Your task to perform on an android device: make emails show in primary in the gmail app Image 0: 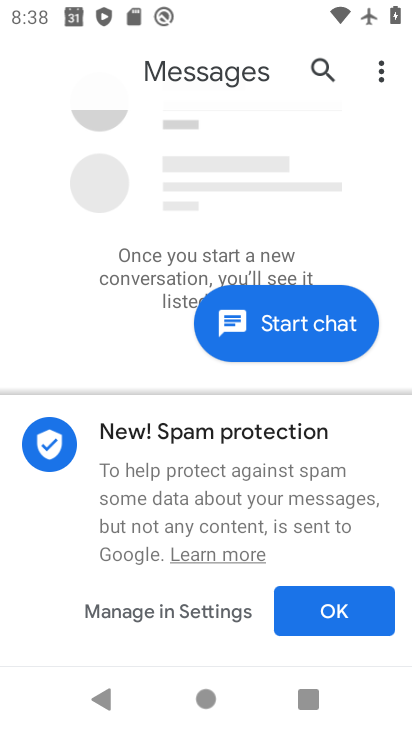
Step 0: press home button
Your task to perform on an android device: make emails show in primary in the gmail app Image 1: 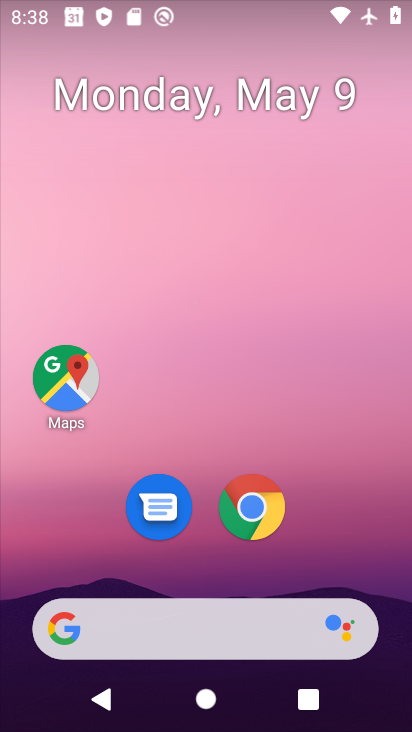
Step 1: drag from (248, 604) to (259, 19)
Your task to perform on an android device: make emails show in primary in the gmail app Image 2: 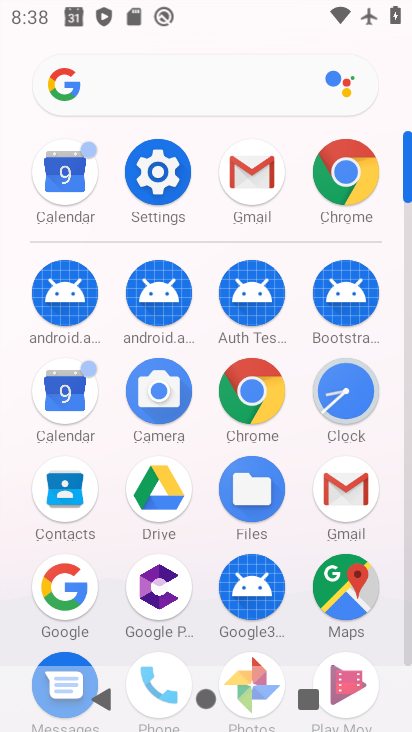
Step 2: click (338, 507)
Your task to perform on an android device: make emails show in primary in the gmail app Image 3: 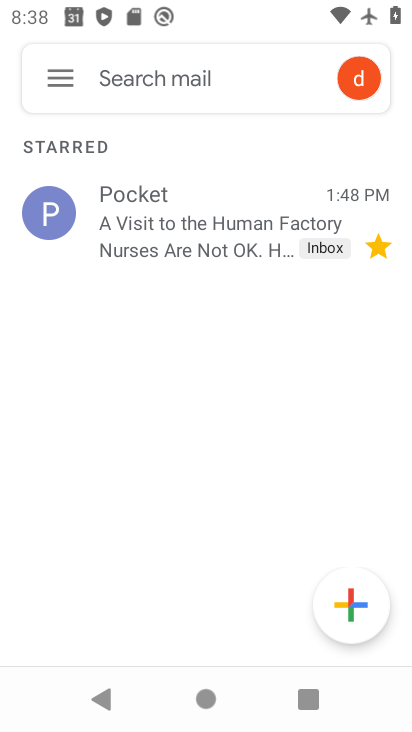
Step 3: click (50, 74)
Your task to perform on an android device: make emails show in primary in the gmail app Image 4: 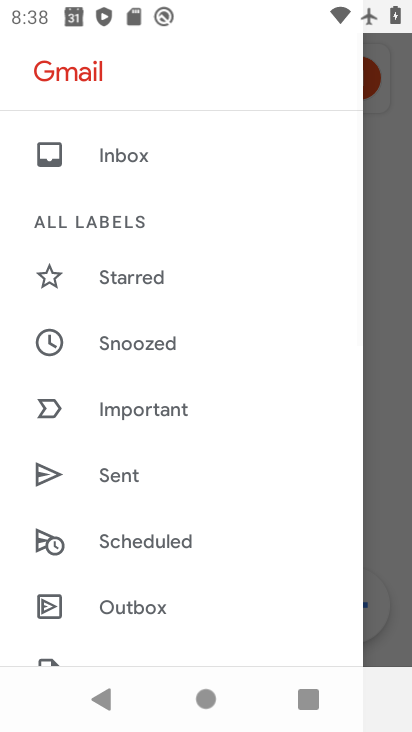
Step 4: drag from (168, 572) to (128, 12)
Your task to perform on an android device: make emails show in primary in the gmail app Image 5: 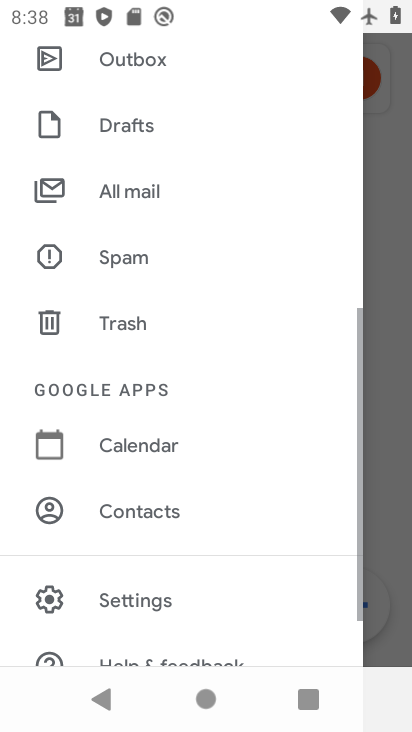
Step 5: click (139, 602)
Your task to perform on an android device: make emails show in primary in the gmail app Image 6: 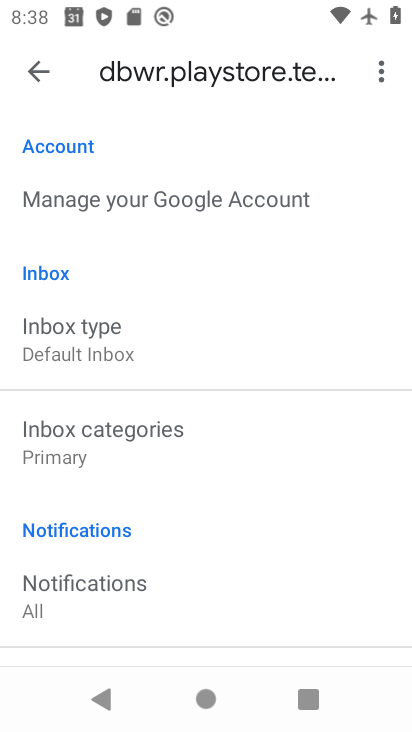
Step 6: click (45, 56)
Your task to perform on an android device: make emails show in primary in the gmail app Image 7: 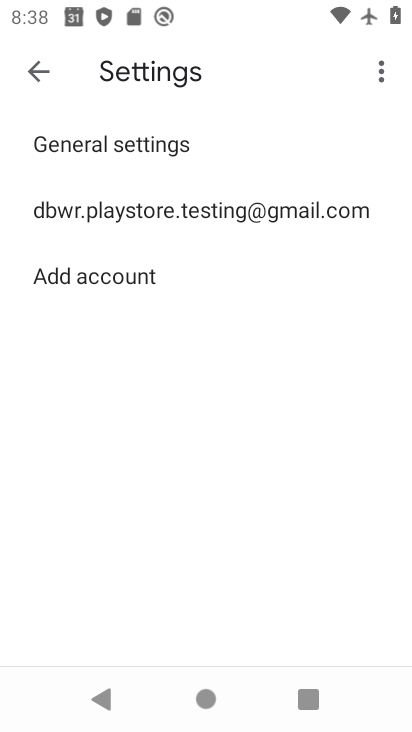
Step 7: click (42, 60)
Your task to perform on an android device: make emails show in primary in the gmail app Image 8: 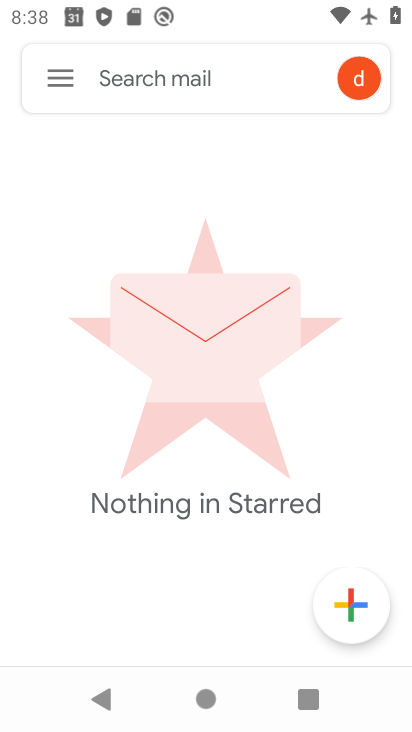
Step 8: click (45, 73)
Your task to perform on an android device: make emails show in primary in the gmail app Image 9: 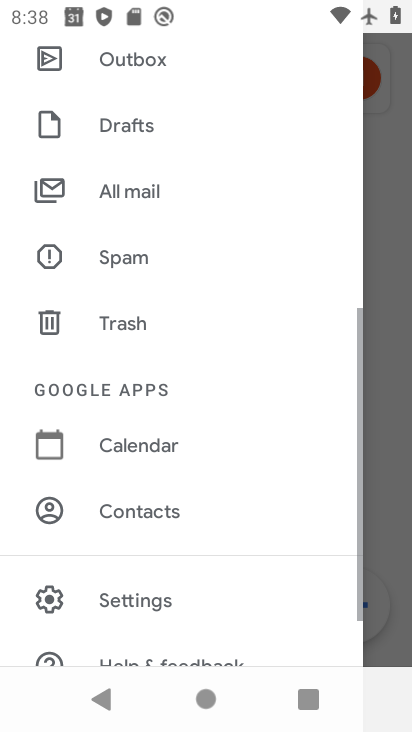
Step 9: drag from (81, 131) to (106, 628)
Your task to perform on an android device: make emails show in primary in the gmail app Image 10: 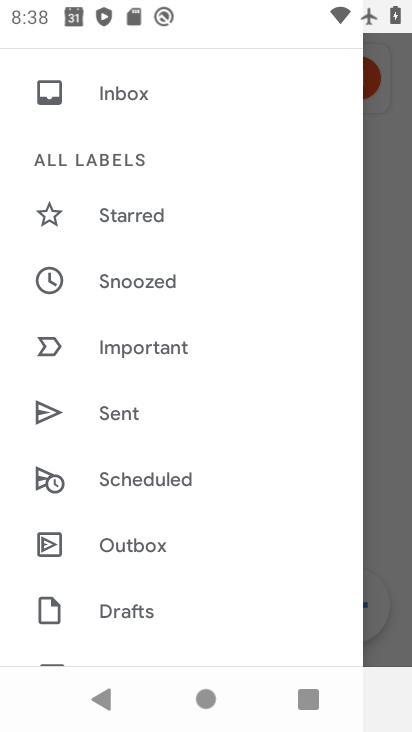
Step 10: drag from (94, 184) to (118, 559)
Your task to perform on an android device: make emails show in primary in the gmail app Image 11: 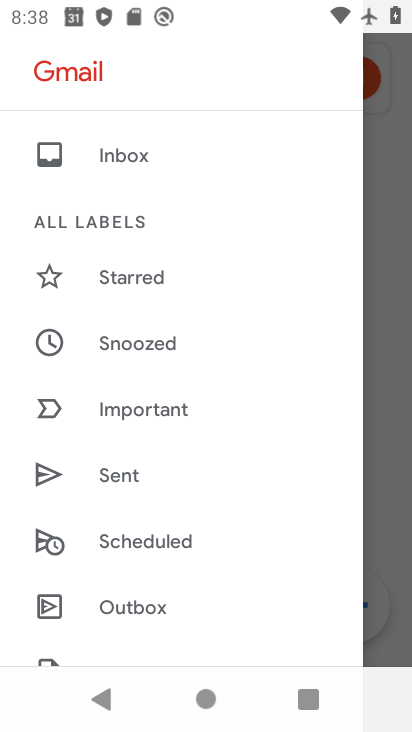
Step 11: drag from (143, 464) to (158, 3)
Your task to perform on an android device: make emails show in primary in the gmail app Image 12: 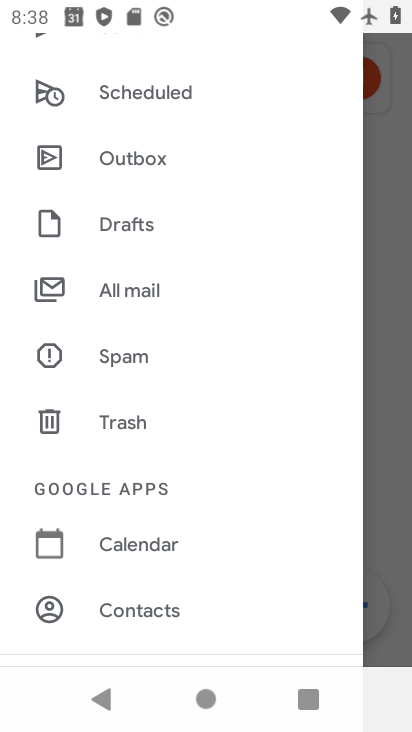
Step 12: drag from (139, 551) to (161, 7)
Your task to perform on an android device: make emails show in primary in the gmail app Image 13: 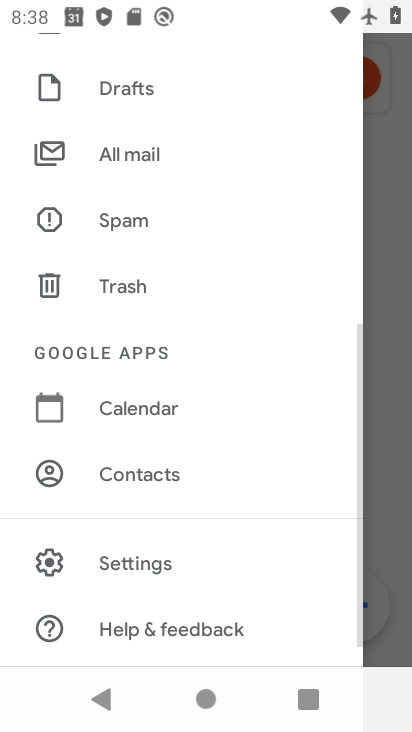
Step 13: click (149, 548)
Your task to perform on an android device: make emails show in primary in the gmail app Image 14: 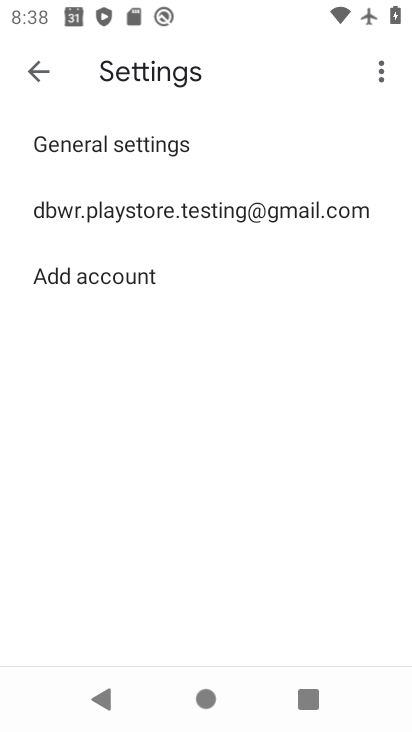
Step 14: click (150, 206)
Your task to perform on an android device: make emails show in primary in the gmail app Image 15: 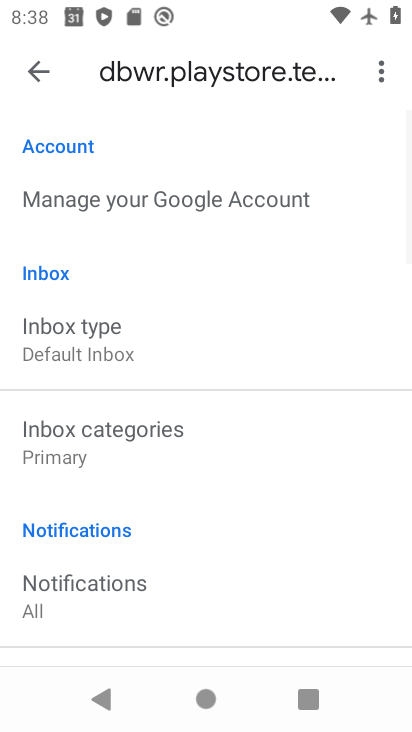
Step 15: click (127, 416)
Your task to perform on an android device: make emails show in primary in the gmail app Image 16: 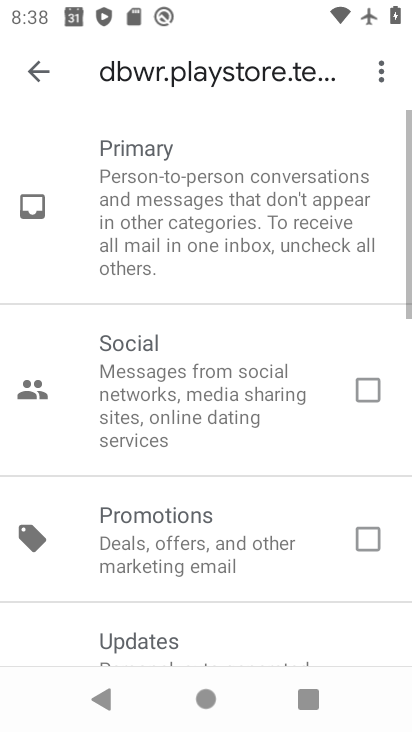
Step 16: click (356, 380)
Your task to perform on an android device: make emails show in primary in the gmail app Image 17: 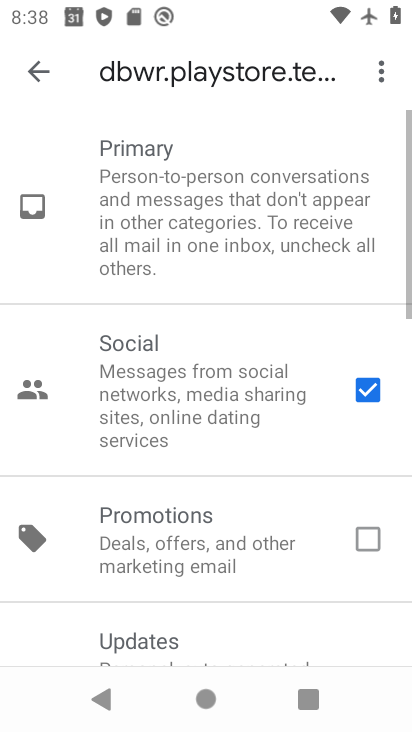
Step 17: click (358, 544)
Your task to perform on an android device: make emails show in primary in the gmail app Image 18: 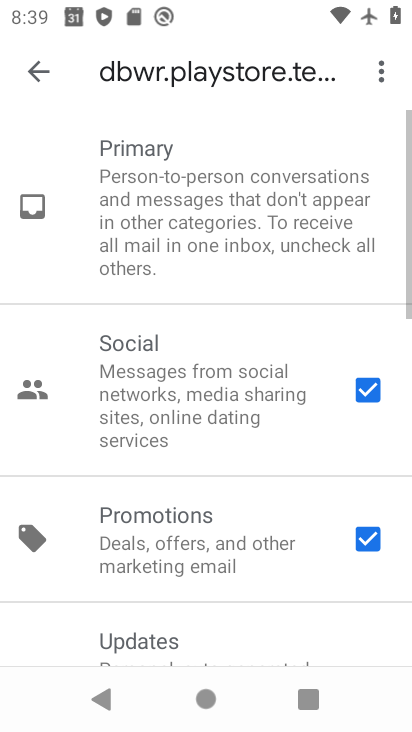
Step 18: click (65, 81)
Your task to perform on an android device: make emails show in primary in the gmail app Image 19: 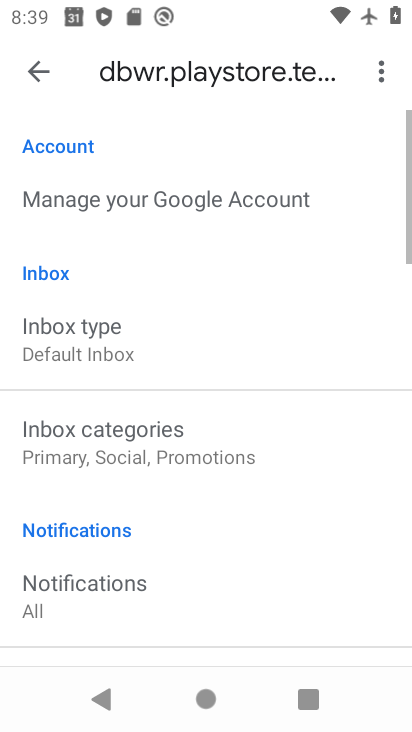
Step 19: click (65, 82)
Your task to perform on an android device: make emails show in primary in the gmail app Image 20: 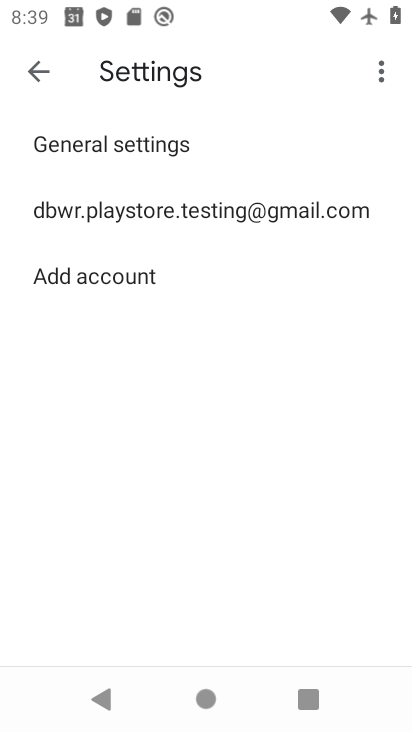
Step 20: click (65, 82)
Your task to perform on an android device: make emails show in primary in the gmail app Image 21: 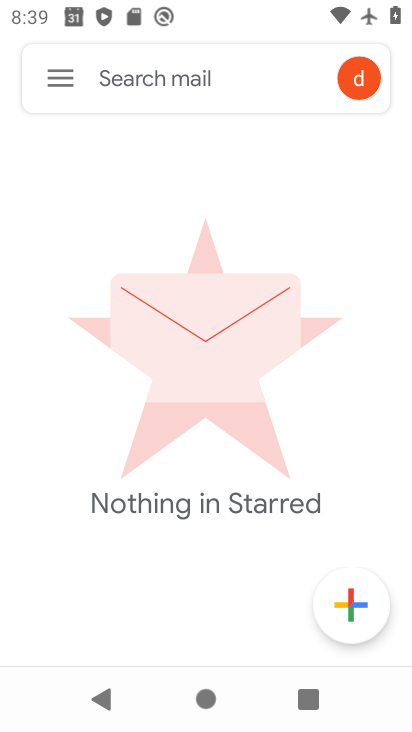
Step 21: click (82, 85)
Your task to perform on an android device: make emails show in primary in the gmail app Image 22: 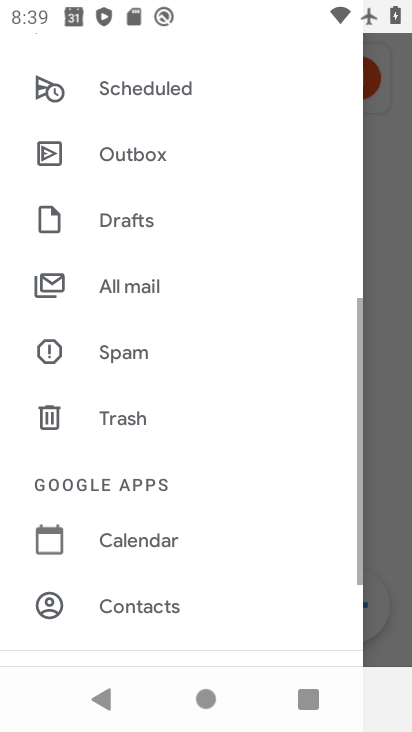
Step 22: drag from (166, 112) to (132, 675)
Your task to perform on an android device: make emails show in primary in the gmail app Image 23: 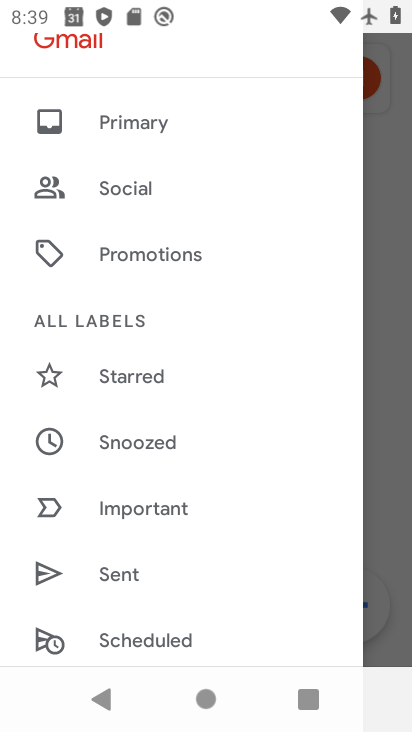
Step 23: click (150, 134)
Your task to perform on an android device: make emails show in primary in the gmail app Image 24: 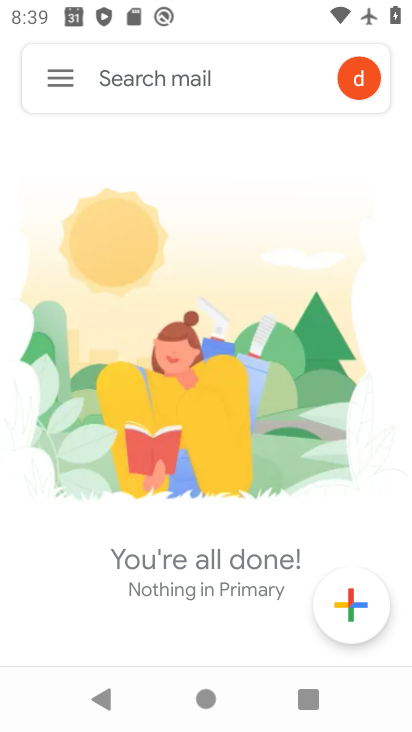
Step 24: task complete